Your task to perform on an android device: allow cookies in the chrome app Image 0: 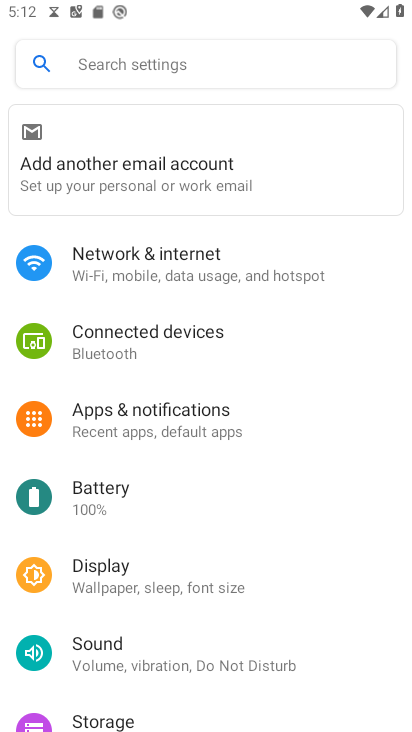
Step 0: press home button
Your task to perform on an android device: allow cookies in the chrome app Image 1: 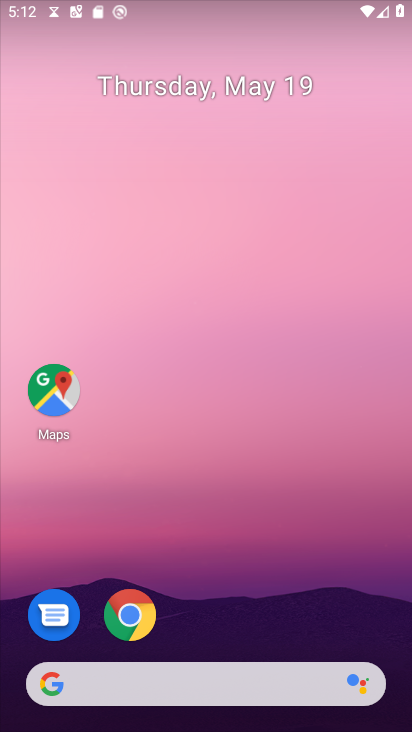
Step 1: drag from (224, 659) to (269, 6)
Your task to perform on an android device: allow cookies in the chrome app Image 2: 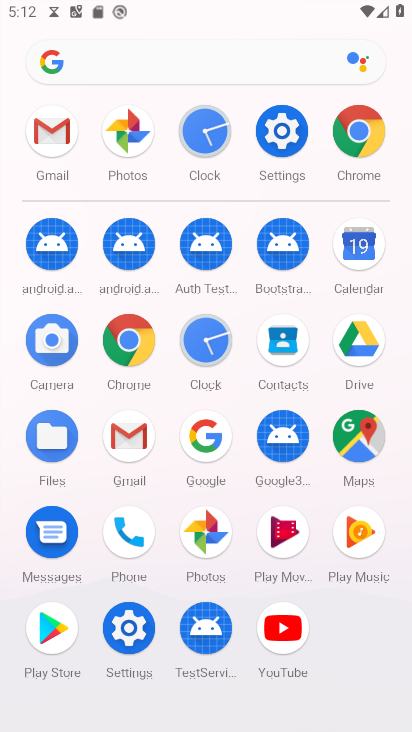
Step 2: click (139, 332)
Your task to perform on an android device: allow cookies in the chrome app Image 3: 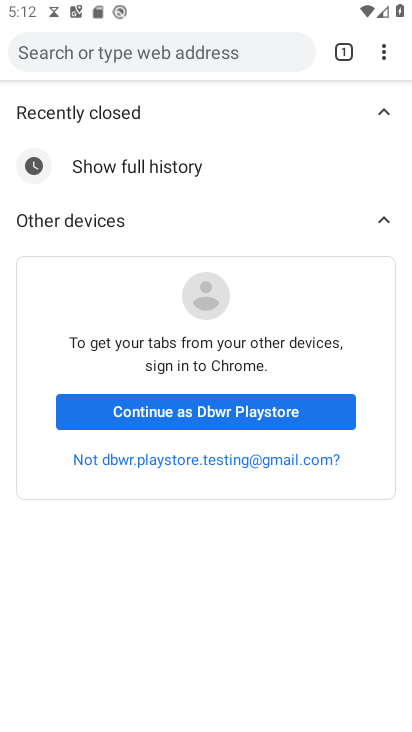
Step 3: click (388, 56)
Your task to perform on an android device: allow cookies in the chrome app Image 4: 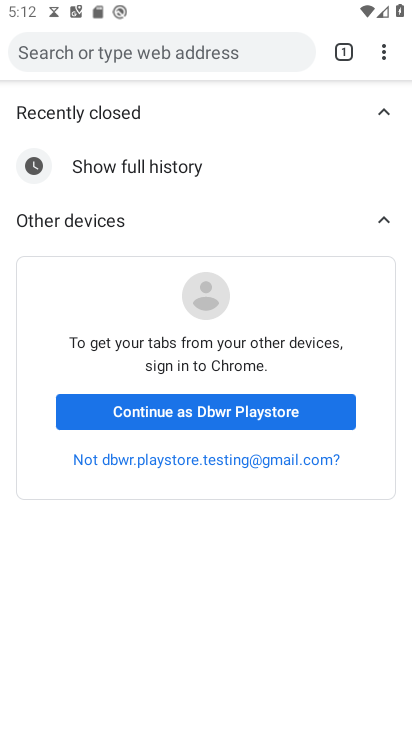
Step 4: click (388, 56)
Your task to perform on an android device: allow cookies in the chrome app Image 5: 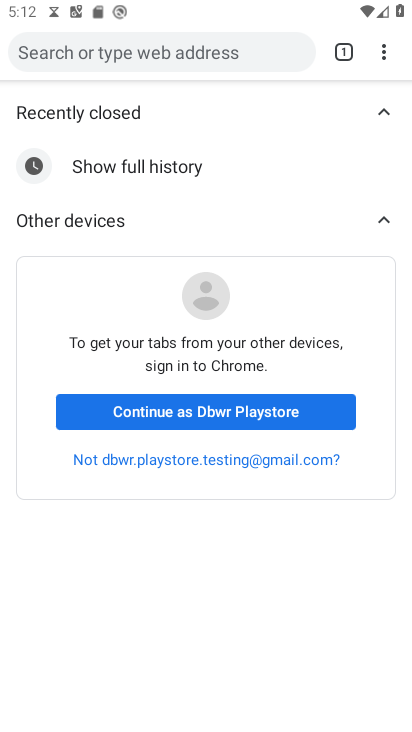
Step 5: drag from (388, 56) to (223, 447)
Your task to perform on an android device: allow cookies in the chrome app Image 6: 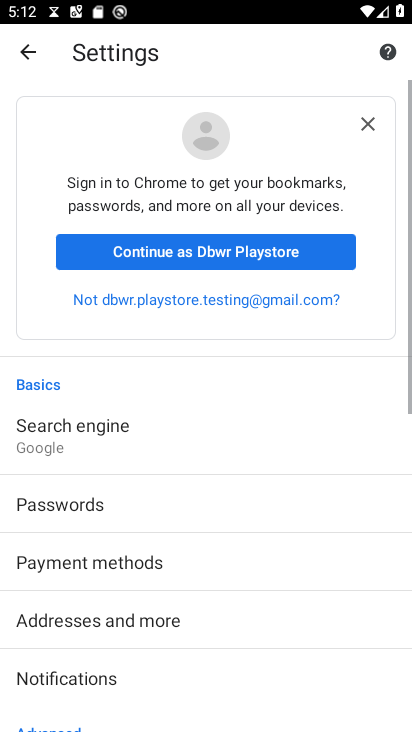
Step 6: drag from (210, 595) to (226, 34)
Your task to perform on an android device: allow cookies in the chrome app Image 7: 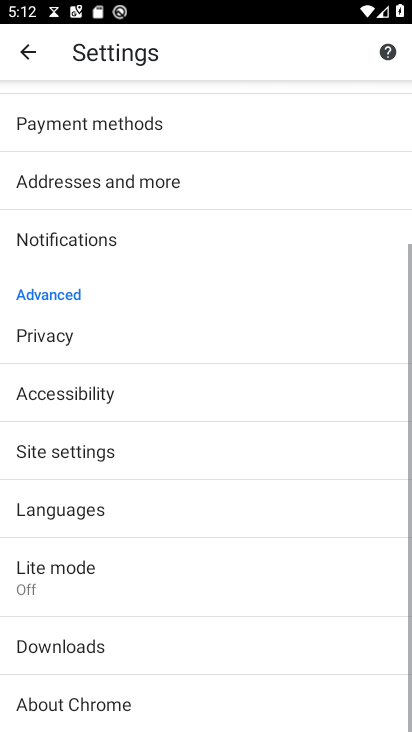
Step 7: click (83, 460)
Your task to perform on an android device: allow cookies in the chrome app Image 8: 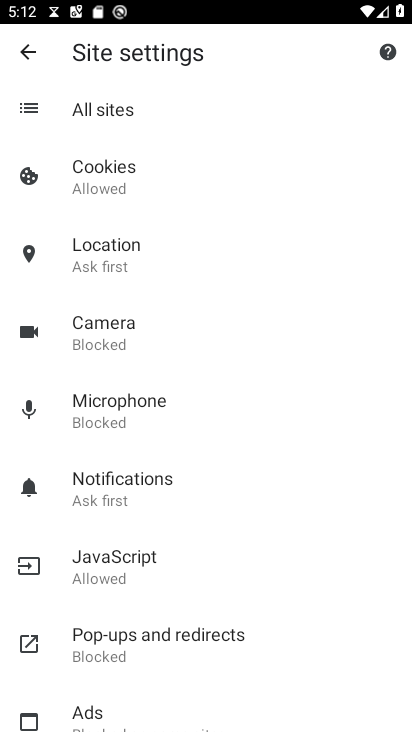
Step 8: click (139, 164)
Your task to perform on an android device: allow cookies in the chrome app Image 9: 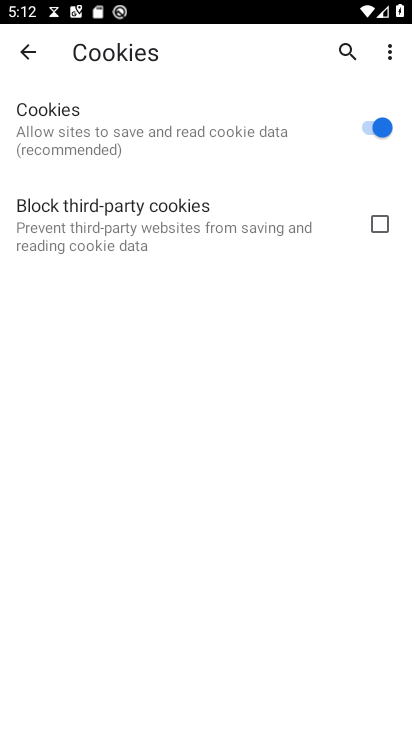
Step 9: task complete